Your task to perform on an android device: open a bookmark in the chrome app Image 0: 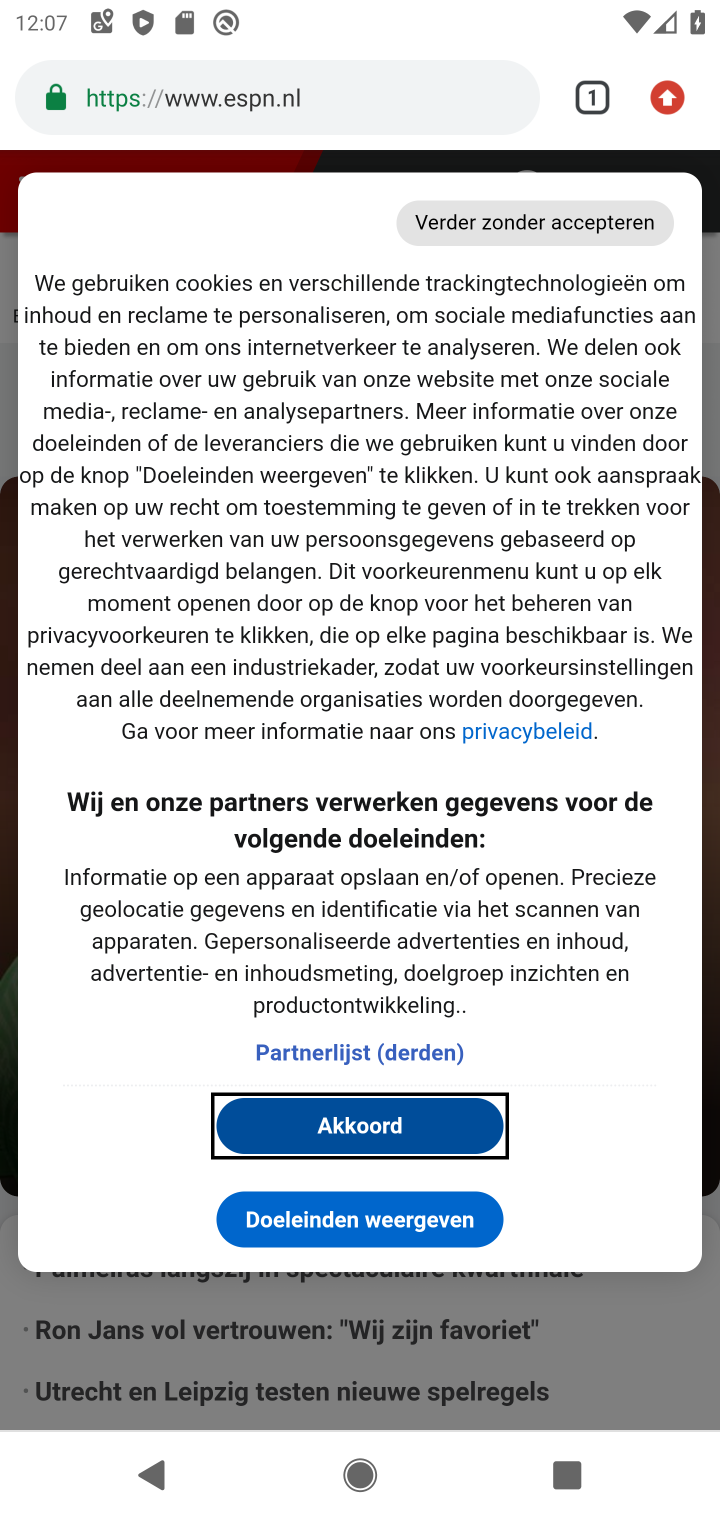
Step 0: press home button
Your task to perform on an android device: open a bookmark in the chrome app Image 1: 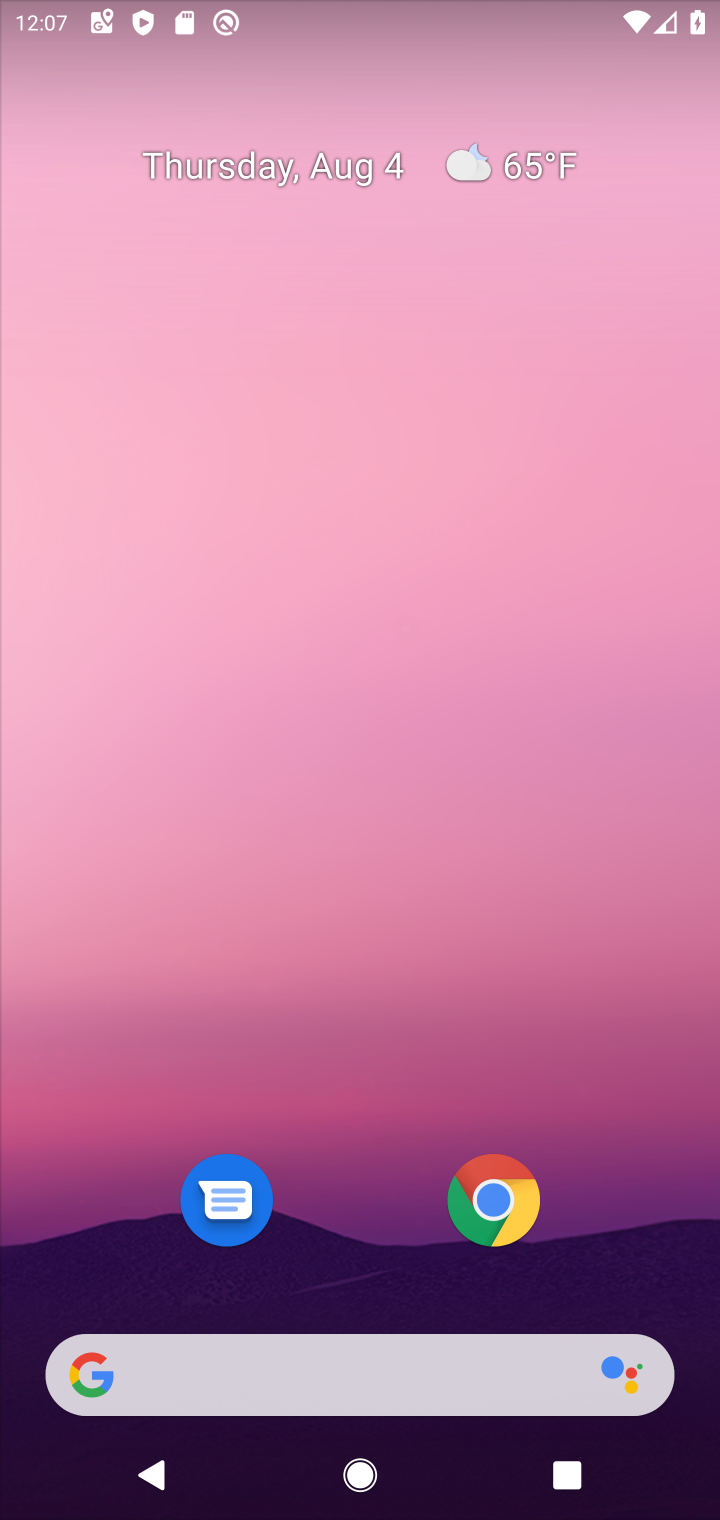
Step 1: click (482, 1198)
Your task to perform on an android device: open a bookmark in the chrome app Image 2: 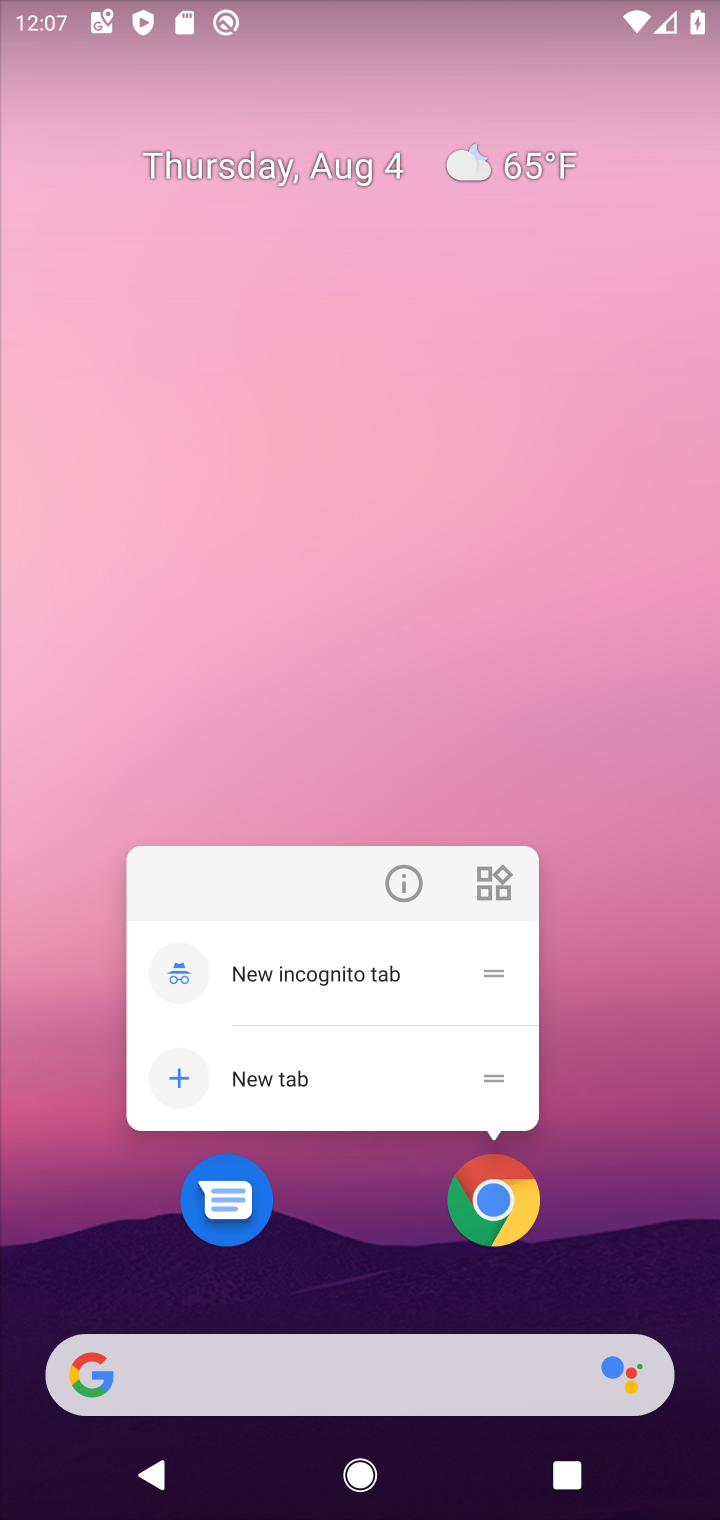
Step 2: click (482, 1198)
Your task to perform on an android device: open a bookmark in the chrome app Image 3: 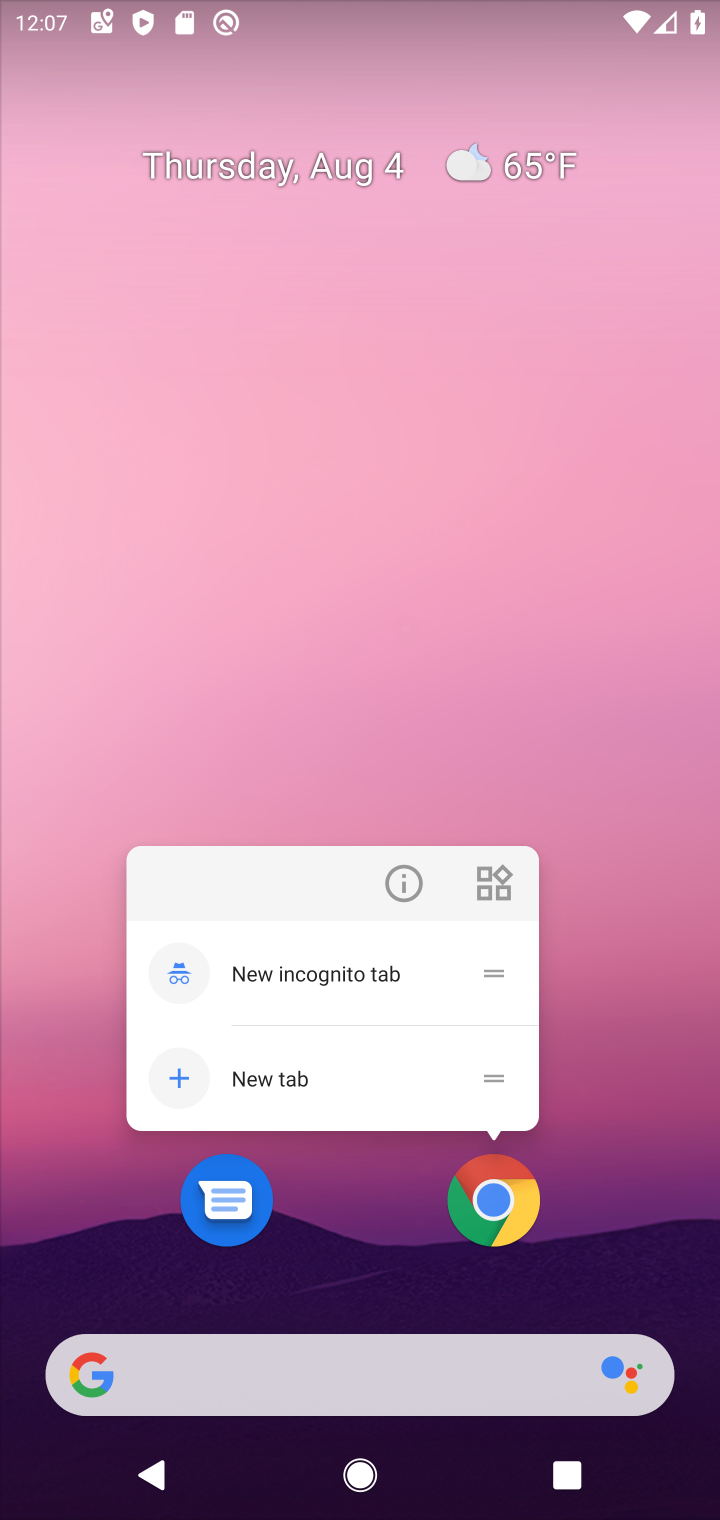
Step 3: click (482, 1198)
Your task to perform on an android device: open a bookmark in the chrome app Image 4: 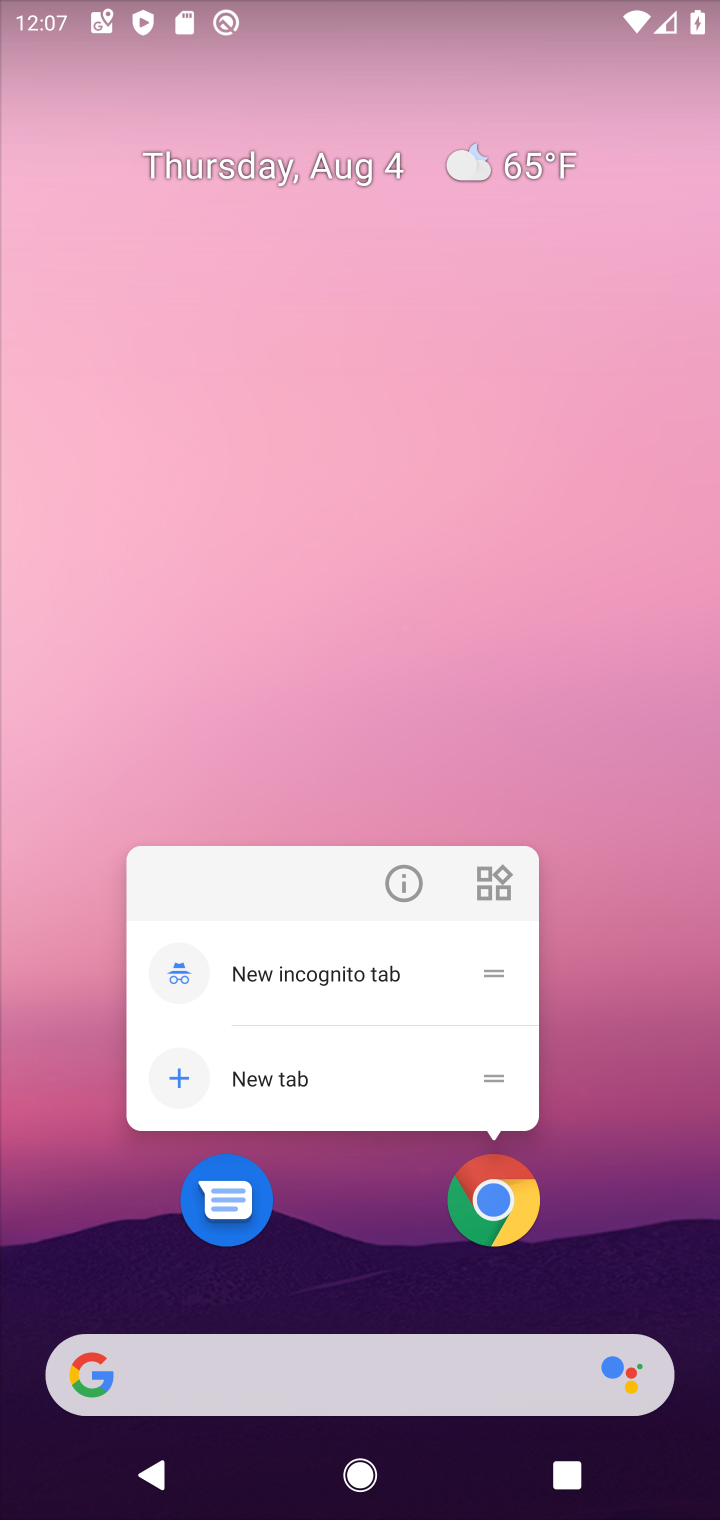
Step 4: drag from (585, 1269) to (416, 218)
Your task to perform on an android device: open a bookmark in the chrome app Image 5: 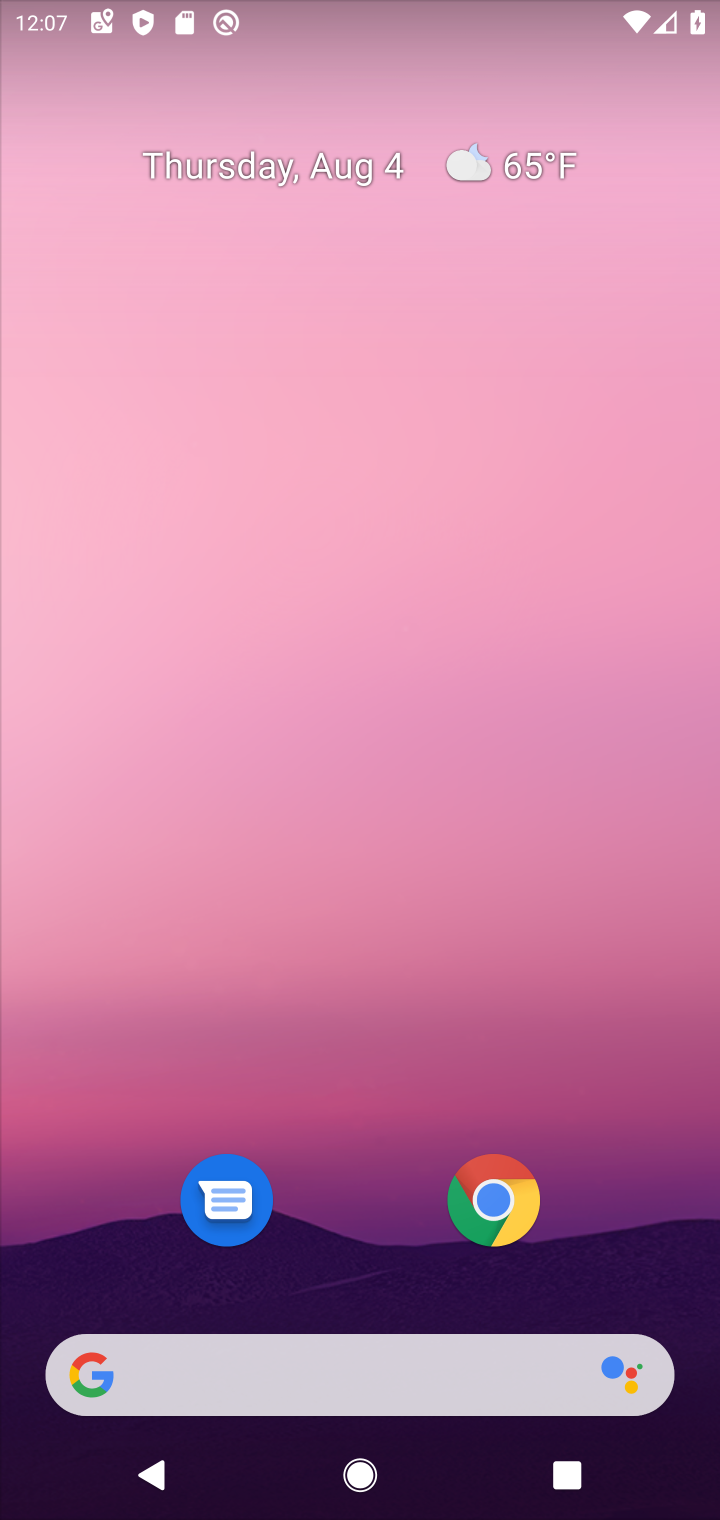
Step 5: drag from (668, 1194) to (495, 140)
Your task to perform on an android device: open a bookmark in the chrome app Image 6: 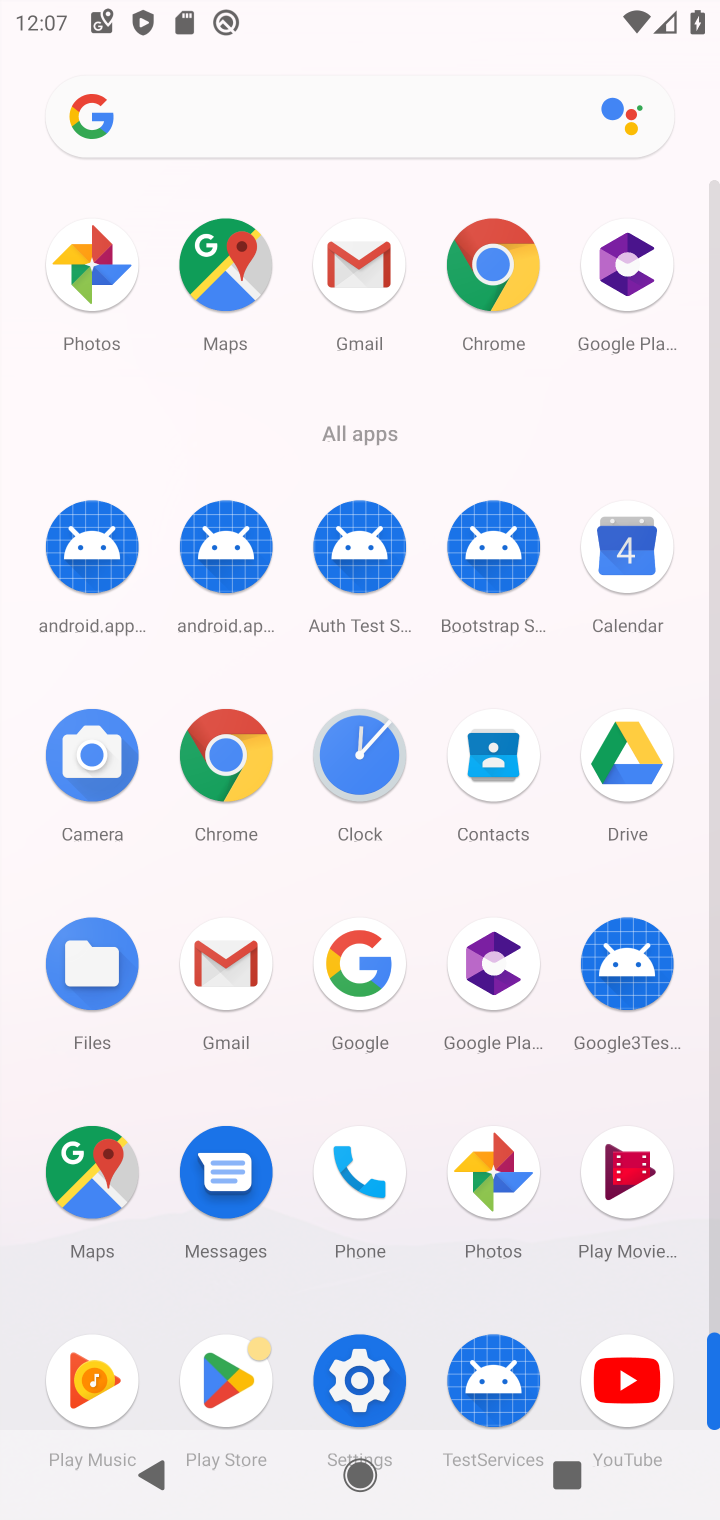
Step 6: click (222, 756)
Your task to perform on an android device: open a bookmark in the chrome app Image 7: 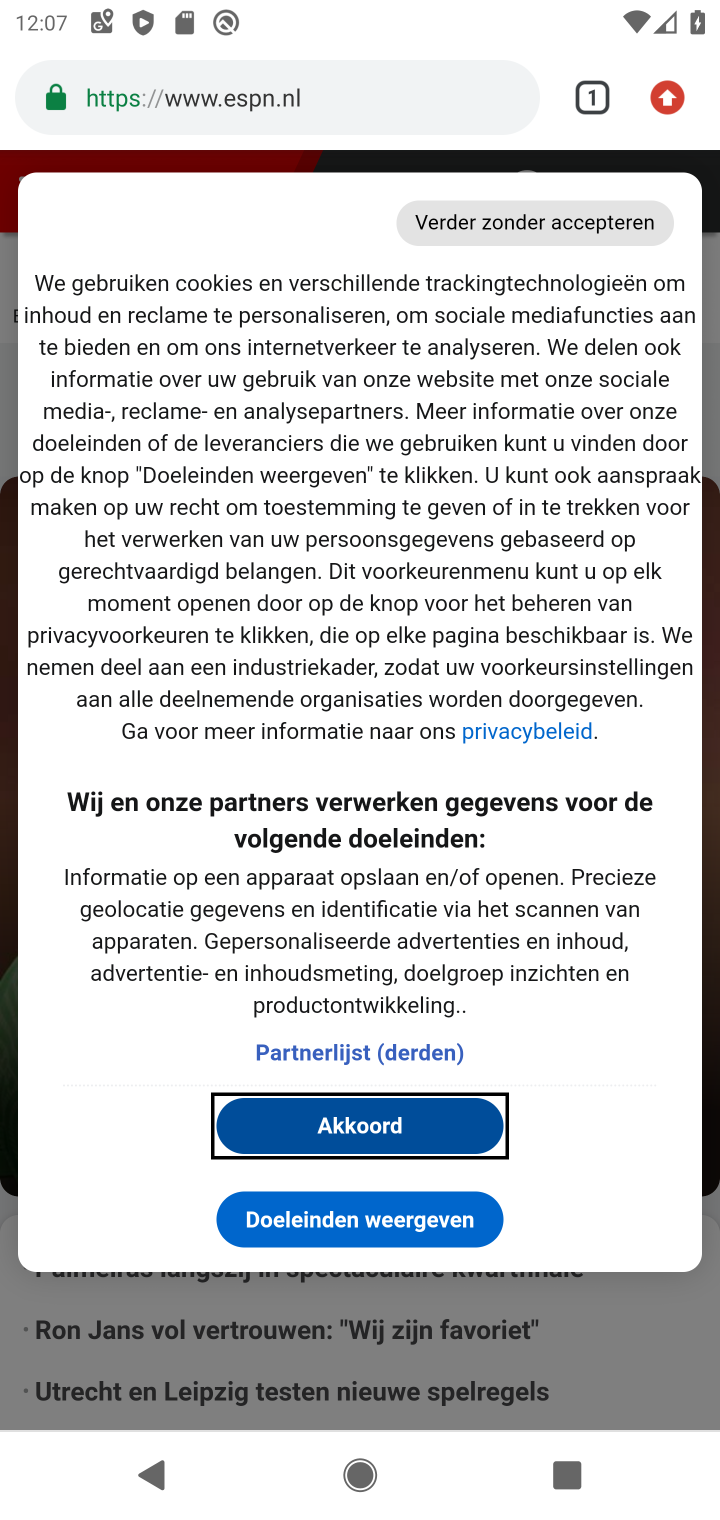
Step 7: click (305, 98)
Your task to perform on an android device: open a bookmark in the chrome app Image 8: 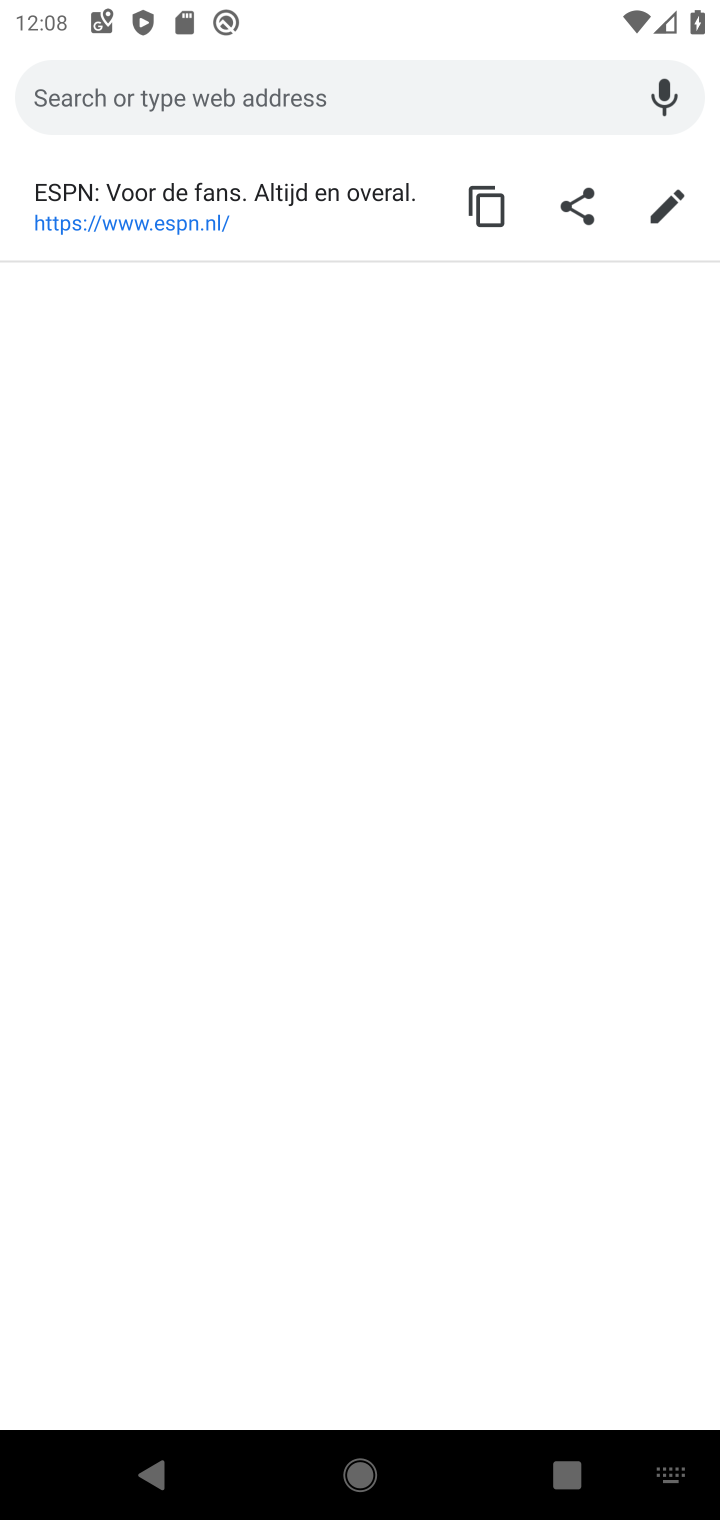
Step 8: task complete